Your task to perform on an android device: set the stopwatch Image 0: 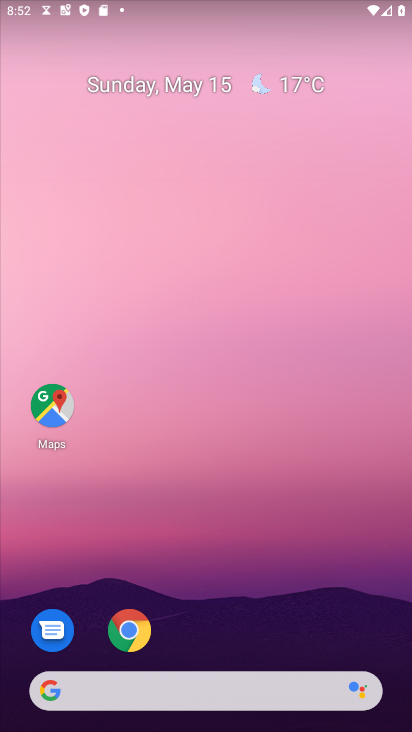
Step 0: drag from (310, 464) to (391, 9)
Your task to perform on an android device: set the stopwatch Image 1: 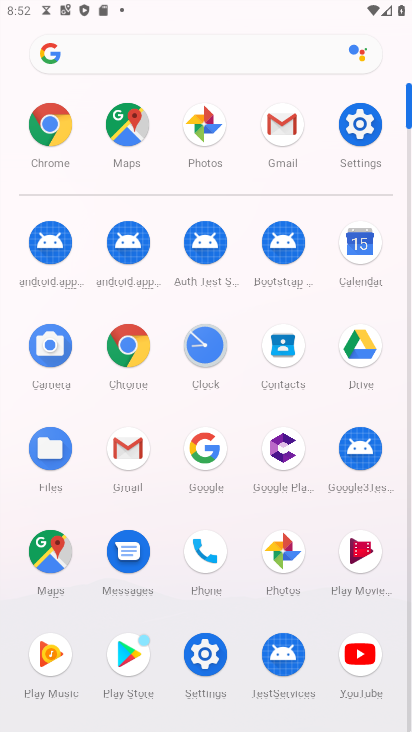
Step 1: click (200, 345)
Your task to perform on an android device: set the stopwatch Image 2: 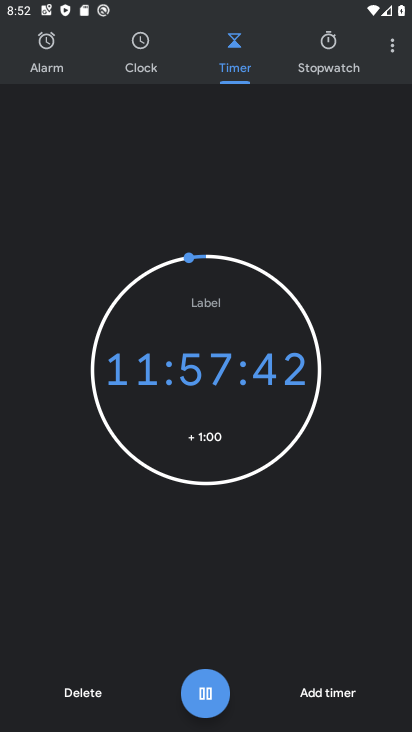
Step 2: click (325, 72)
Your task to perform on an android device: set the stopwatch Image 3: 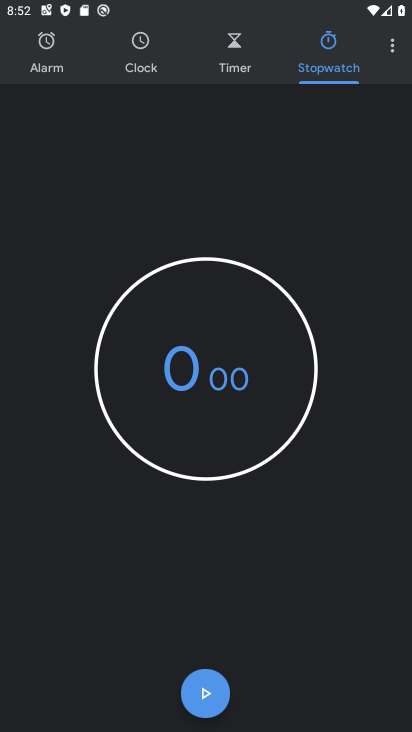
Step 3: click (217, 702)
Your task to perform on an android device: set the stopwatch Image 4: 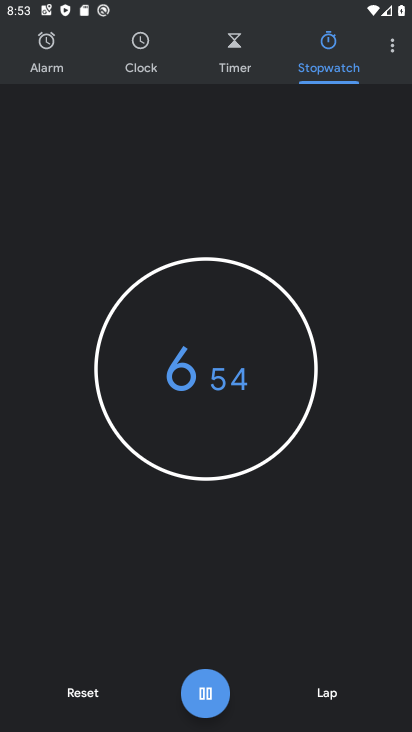
Step 4: task complete